Your task to perform on an android device: Go to Google maps Image 0: 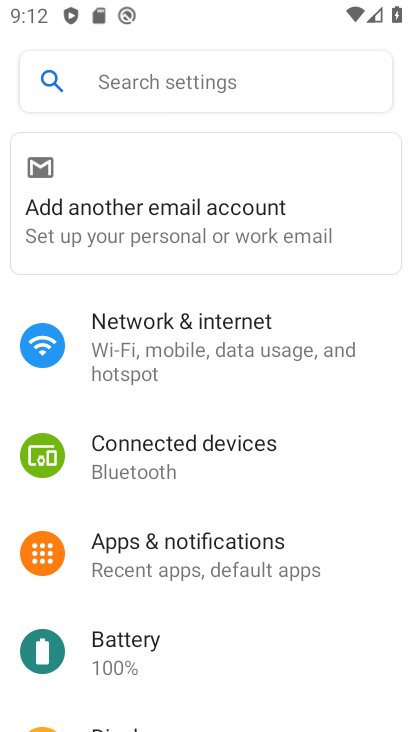
Step 0: press home button
Your task to perform on an android device: Go to Google maps Image 1: 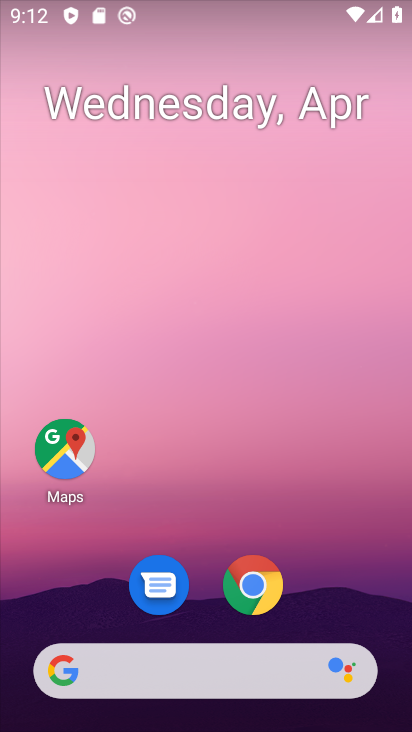
Step 1: click (70, 454)
Your task to perform on an android device: Go to Google maps Image 2: 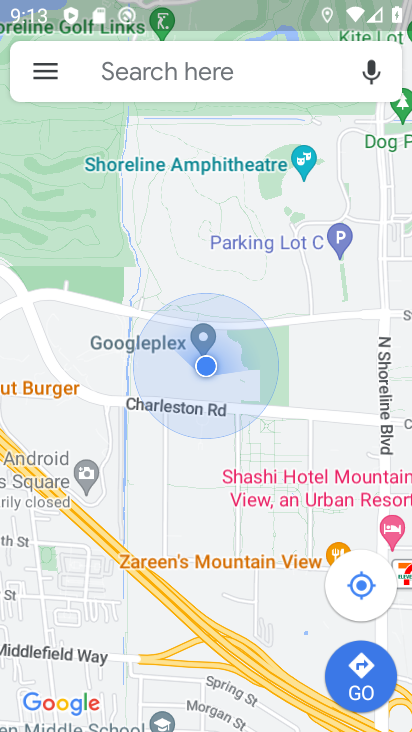
Step 2: task complete